Your task to perform on an android device: When is my next meeting? Image 0: 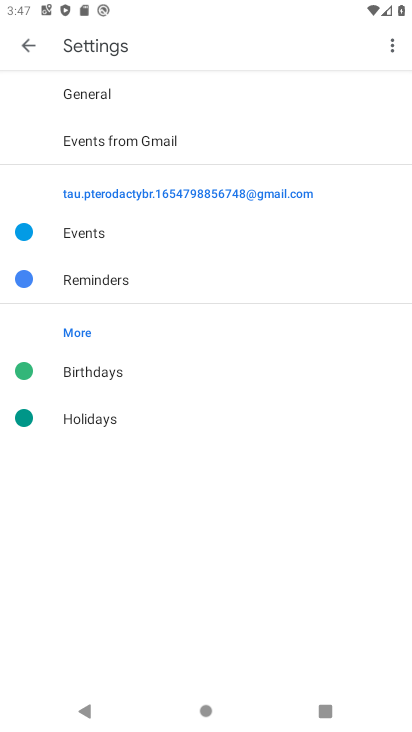
Step 0: press home button
Your task to perform on an android device: When is my next meeting? Image 1: 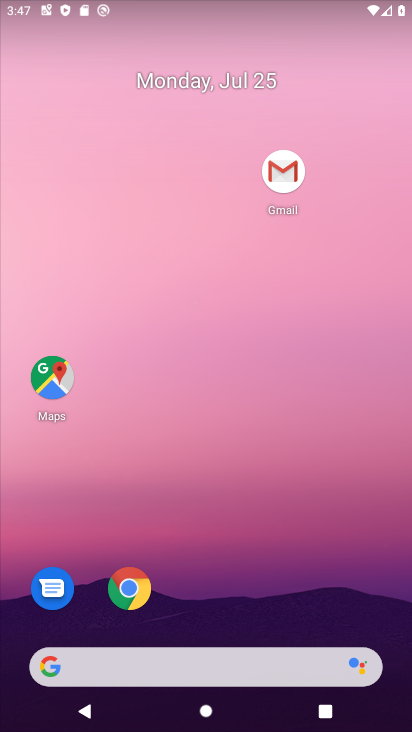
Step 1: drag from (280, 553) to (201, 6)
Your task to perform on an android device: When is my next meeting? Image 2: 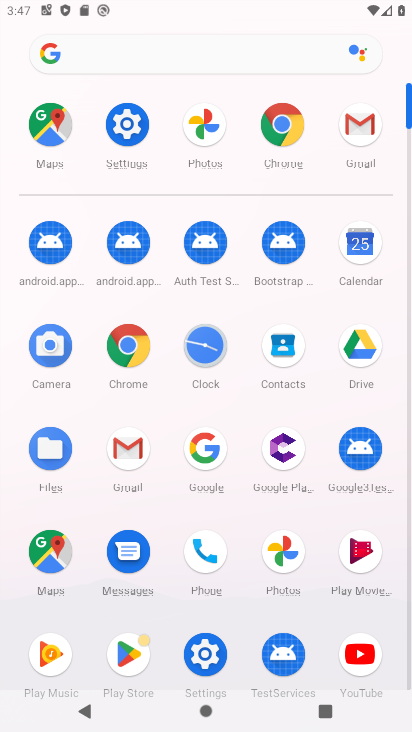
Step 2: click (356, 256)
Your task to perform on an android device: When is my next meeting? Image 3: 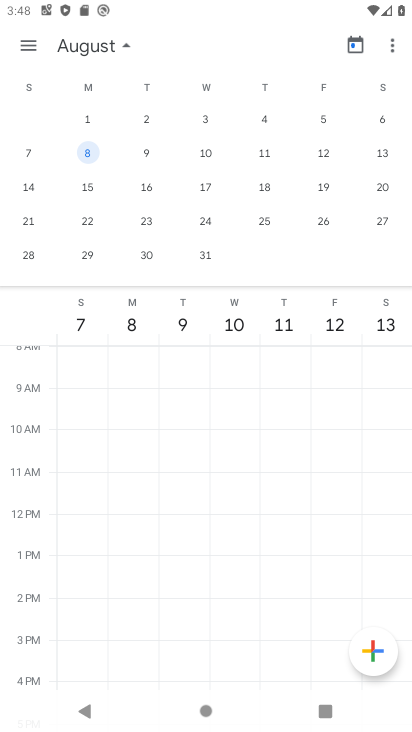
Step 3: drag from (26, 183) to (388, 191)
Your task to perform on an android device: When is my next meeting? Image 4: 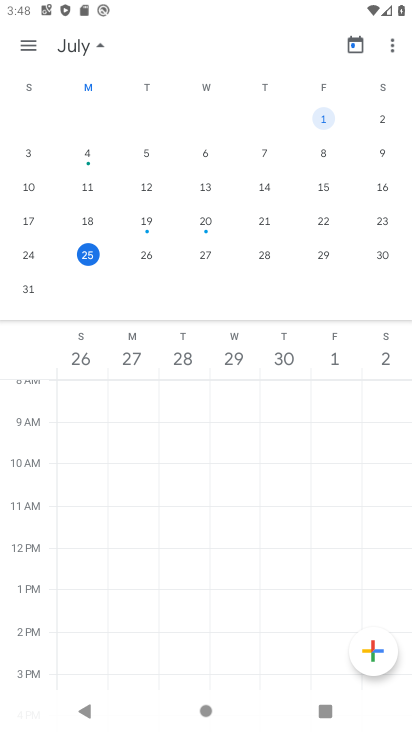
Step 4: click (101, 257)
Your task to perform on an android device: When is my next meeting? Image 5: 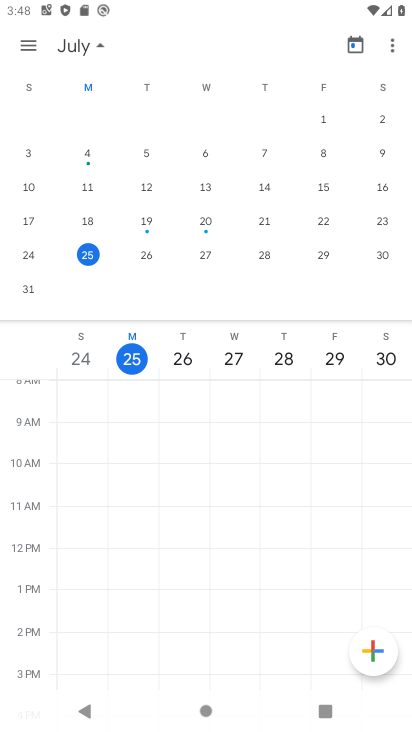
Step 5: task complete